Your task to perform on an android device: Open Chrome and go to settings Image 0: 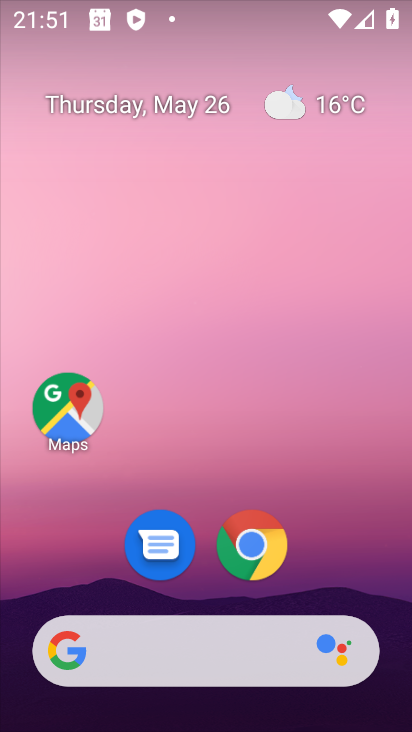
Step 0: click (266, 542)
Your task to perform on an android device: Open Chrome and go to settings Image 1: 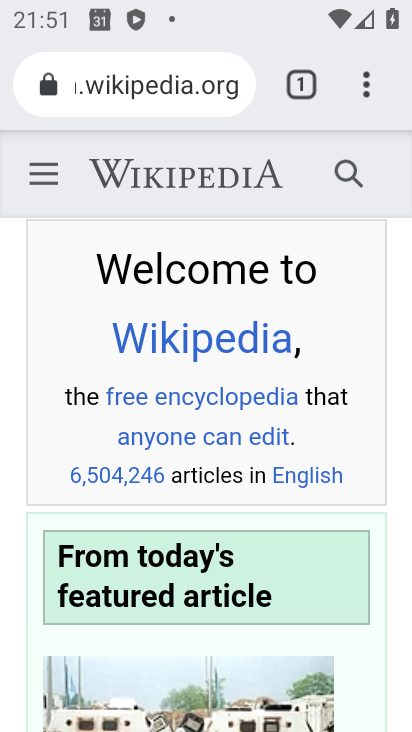
Step 1: click (357, 80)
Your task to perform on an android device: Open Chrome and go to settings Image 2: 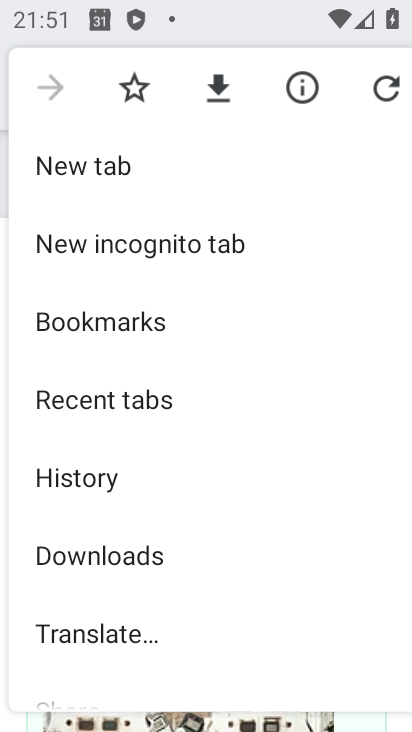
Step 2: drag from (119, 619) to (188, 137)
Your task to perform on an android device: Open Chrome and go to settings Image 3: 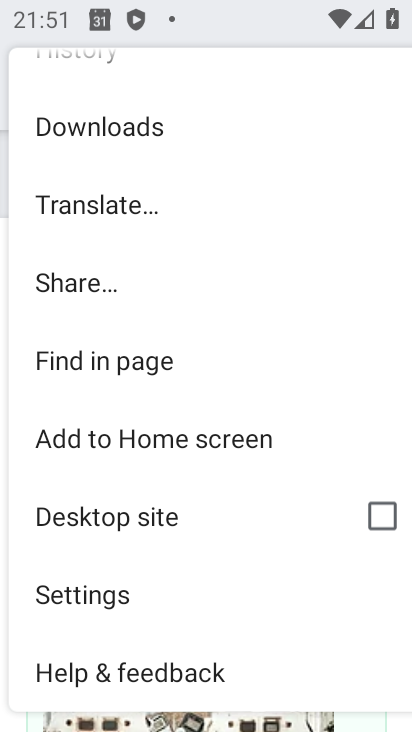
Step 3: click (100, 592)
Your task to perform on an android device: Open Chrome and go to settings Image 4: 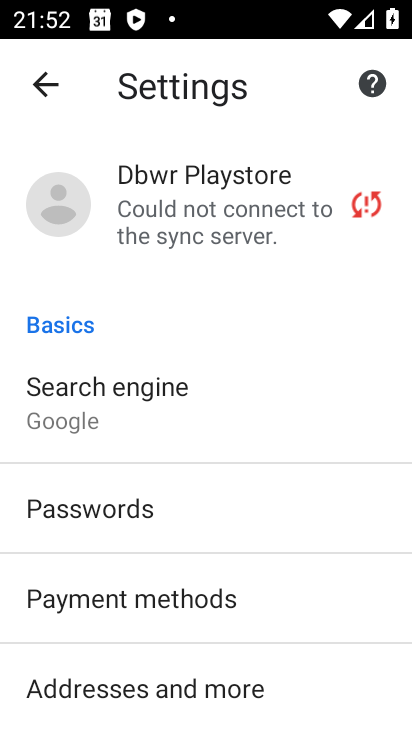
Step 4: task complete